Your task to perform on an android device: Go to sound settings Image 0: 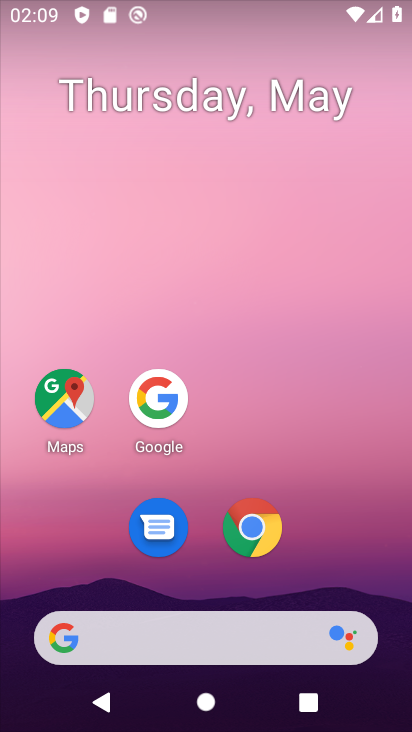
Step 0: drag from (194, 577) to (160, 68)
Your task to perform on an android device: Go to sound settings Image 1: 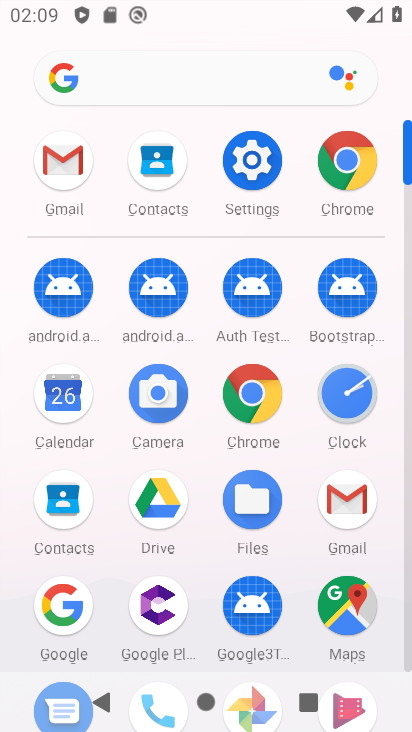
Step 1: click (257, 162)
Your task to perform on an android device: Go to sound settings Image 2: 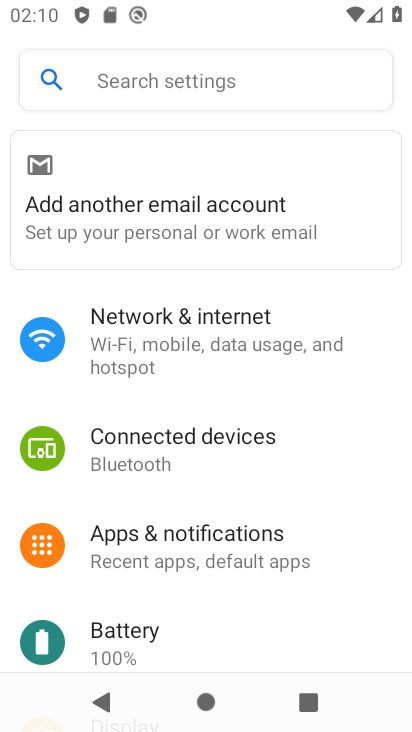
Step 2: drag from (204, 572) to (254, 49)
Your task to perform on an android device: Go to sound settings Image 3: 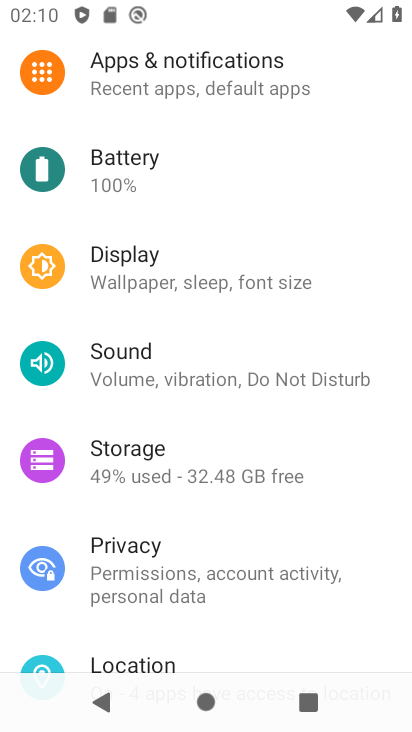
Step 3: drag from (184, 560) to (226, 286)
Your task to perform on an android device: Go to sound settings Image 4: 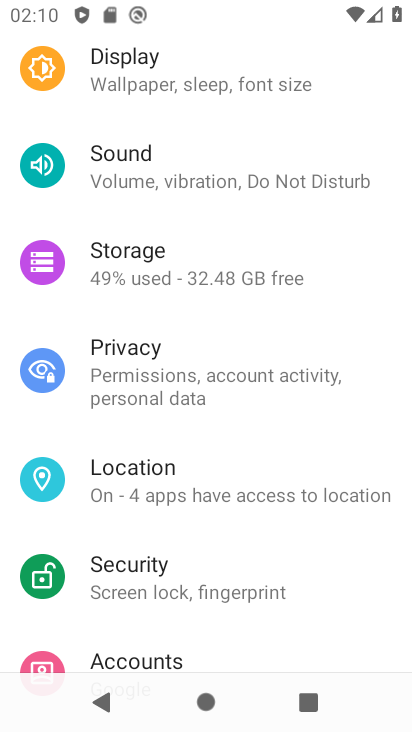
Step 4: click (185, 271)
Your task to perform on an android device: Go to sound settings Image 5: 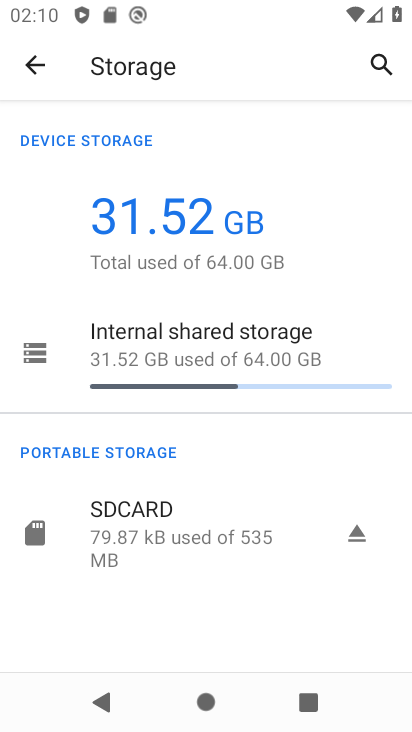
Step 5: click (26, 58)
Your task to perform on an android device: Go to sound settings Image 6: 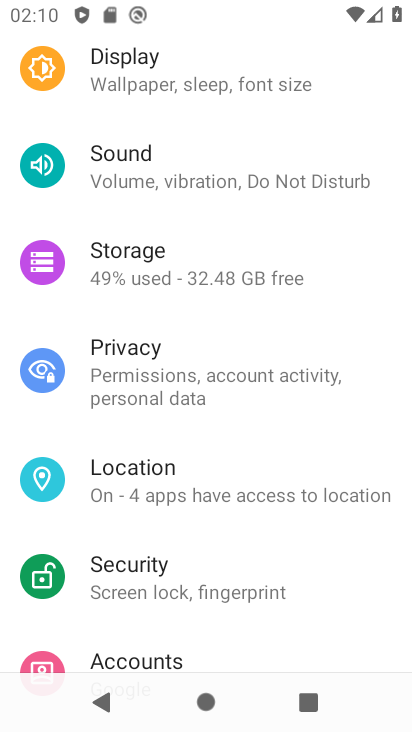
Step 6: click (159, 175)
Your task to perform on an android device: Go to sound settings Image 7: 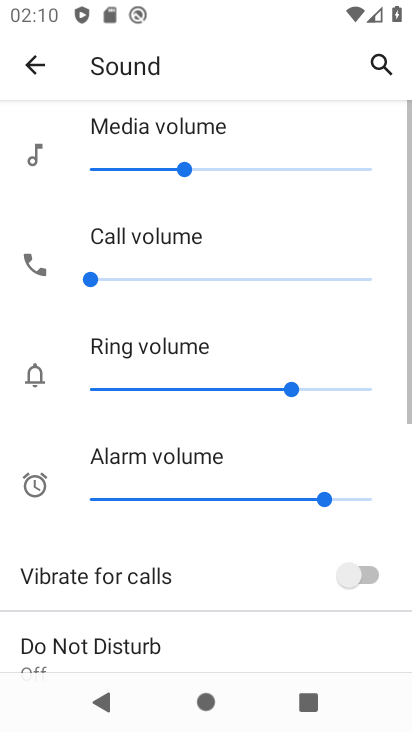
Step 7: task complete